Your task to perform on an android device: Open Google Chrome and click the shortcut for Amazon.com Image 0: 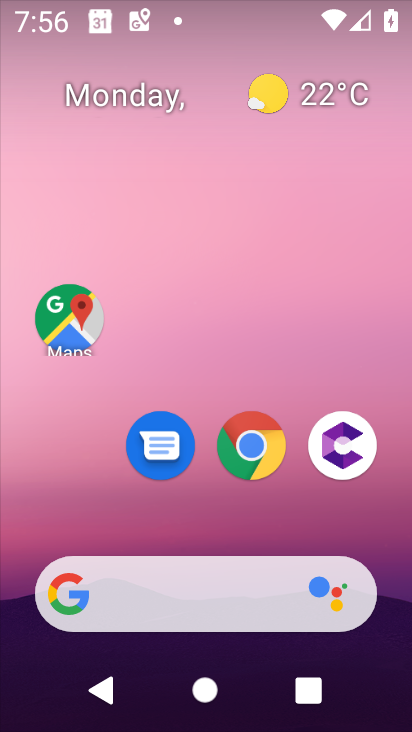
Step 0: press home button
Your task to perform on an android device: Open Google Chrome and click the shortcut for Amazon.com Image 1: 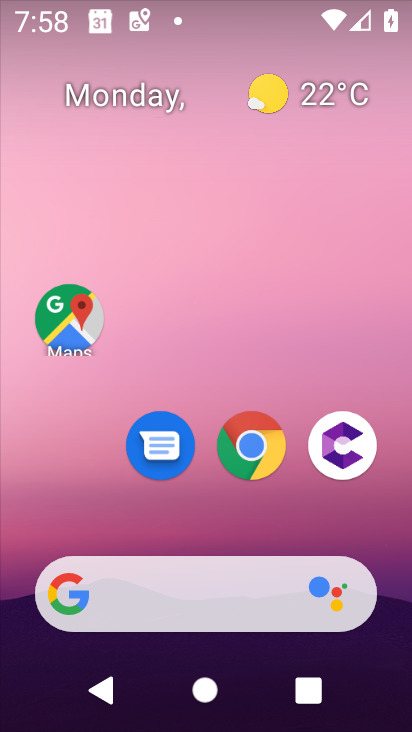
Step 1: click (244, 445)
Your task to perform on an android device: Open Google Chrome and click the shortcut for Amazon.com Image 2: 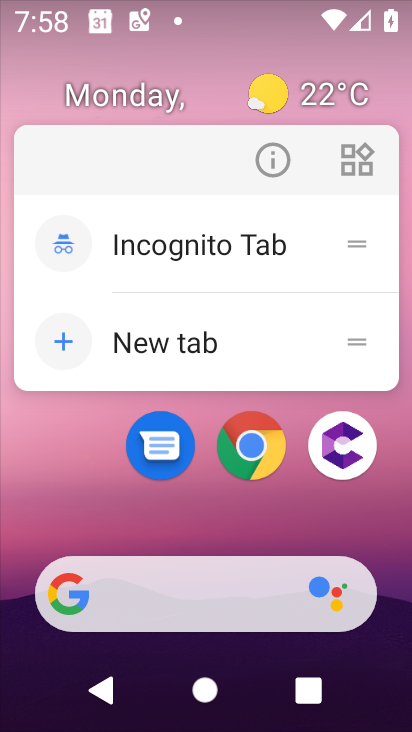
Step 2: click (244, 445)
Your task to perform on an android device: Open Google Chrome and click the shortcut for Amazon.com Image 3: 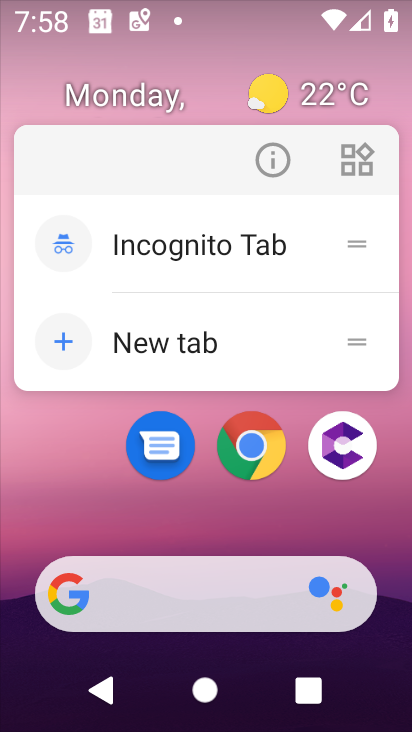
Step 3: click (244, 445)
Your task to perform on an android device: Open Google Chrome and click the shortcut for Amazon.com Image 4: 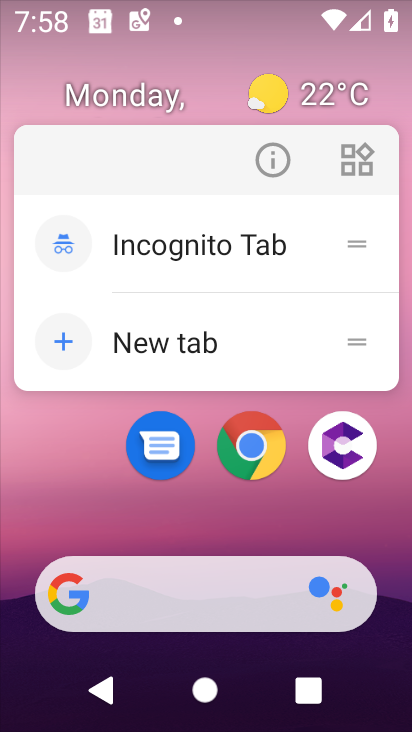
Step 4: click (302, 508)
Your task to perform on an android device: Open Google Chrome and click the shortcut for Amazon.com Image 5: 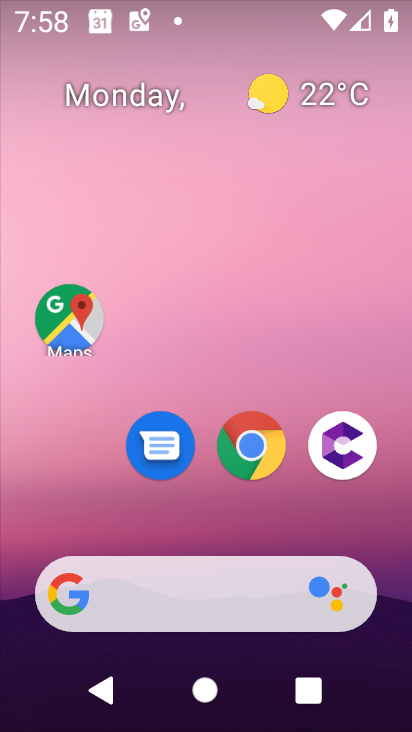
Step 5: drag from (302, 508) to (254, 0)
Your task to perform on an android device: Open Google Chrome and click the shortcut for Amazon.com Image 6: 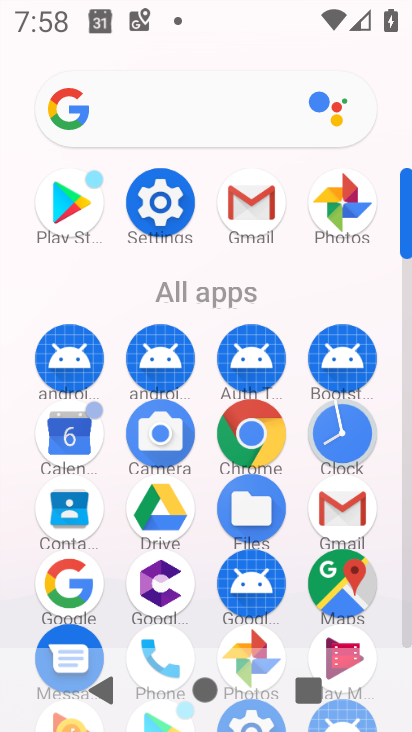
Step 6: drag from (25, 490) to (119, 73)
Your task to perform on an android device: Open Google Chrome and click the shortcut for Amazon.com Image 7: 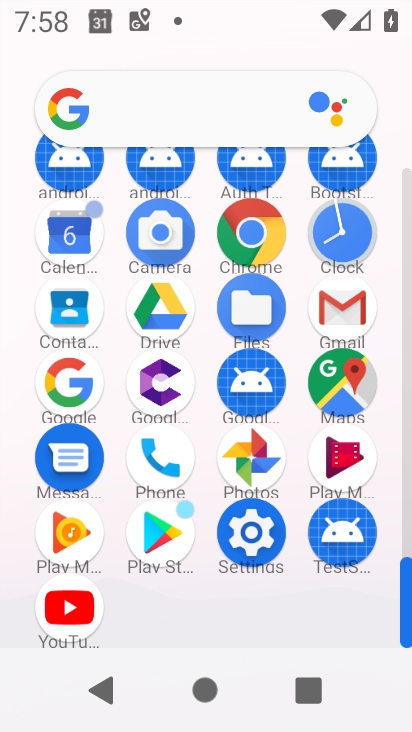
Step 7: click (251, 233)
Your task to perform on an android device: Open Google Chrome and click the shortcut for Amazon.com Image 8: 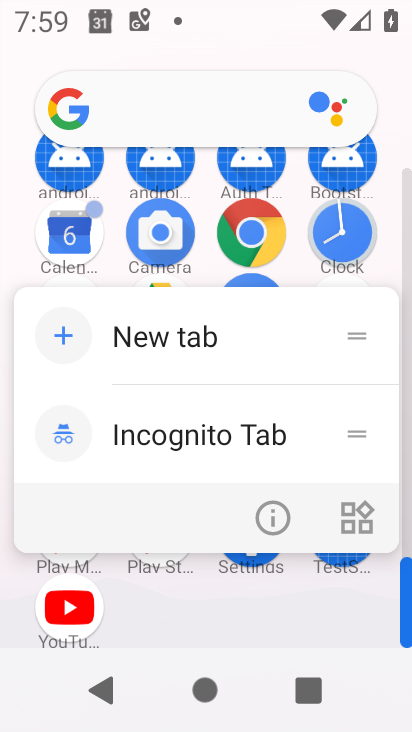
Step 8: click (245, 243)
Your task to perform on an android device: Open Google Chrome and click the shortcut for Amazon.com Image 9: 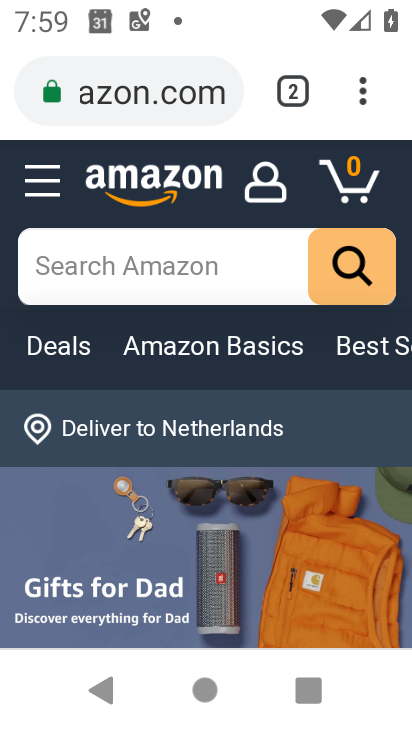
Step 9: click (299, 92)
Your task to perform on an android device: Open Google Chrome and click the shortcut for Amazon.com Image 10: 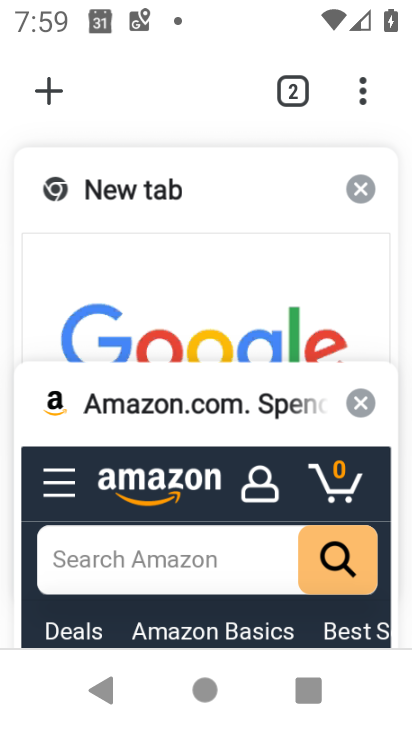
Step 10: click (56, 94)
Your task to perform on an android device: Open Google Chrome and click the shortcut for Amazon.com Image 11: 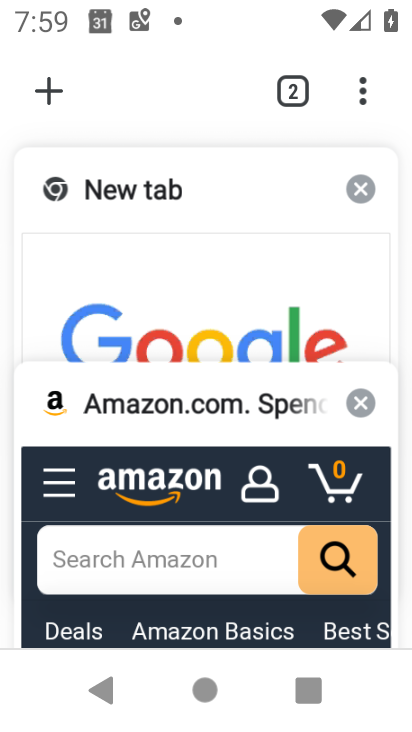
Step 11: click (52, 94)
Your task to perform on an android device: Open Google Chrome and click the shortcut for Amazon.com Image 12: 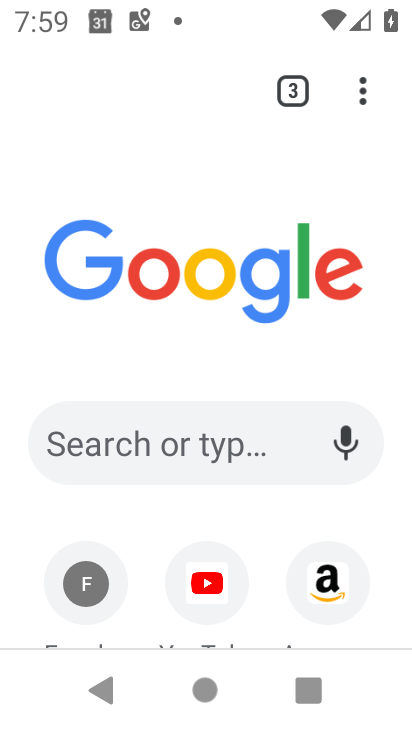
Step 12: drag from (274, 529) to (288, 57)
Your task to perform on an android device: Open Google Chrome and click the shortcut for Amazon.com Image 13: 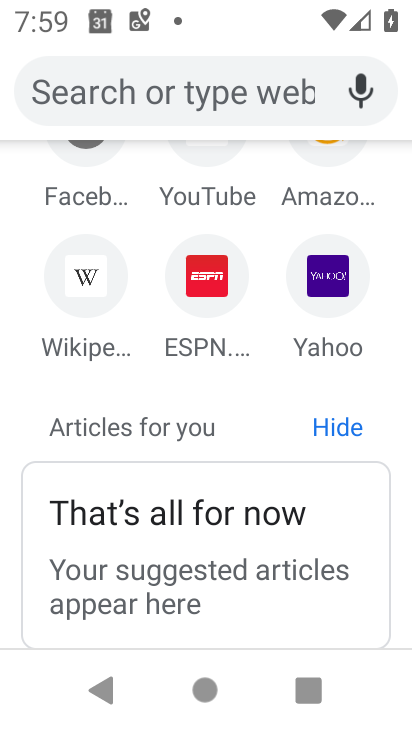
Step 13: drag from (259, 212) to (226, 407)
Your task to perform on an android device: Open Google Chrome and click the shortcut for Amazon.com Image 14: 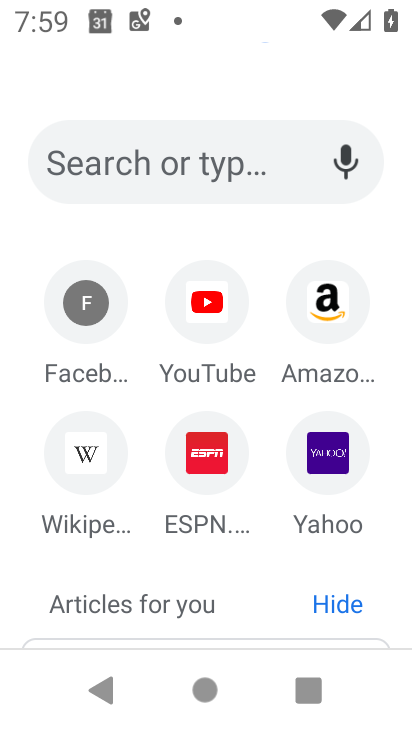
Step 14: click (325, 301)
Your task to perform on an android device: Open Google Chrome and click the shortcut for Amazon.com Image 15: 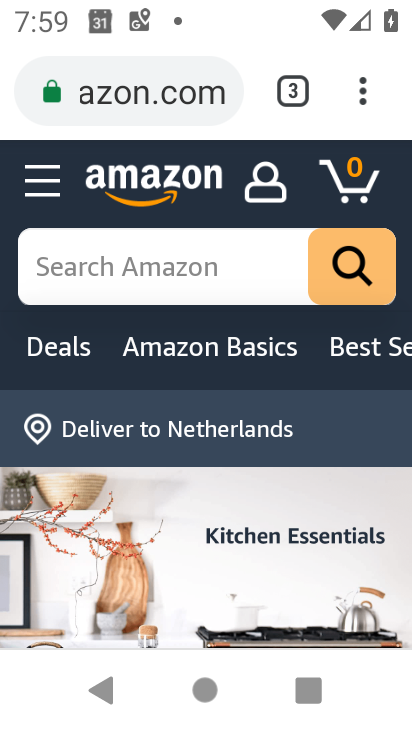
Step 15: task complete